Your task to perform on an android device: toggle sleep mode Image 0: 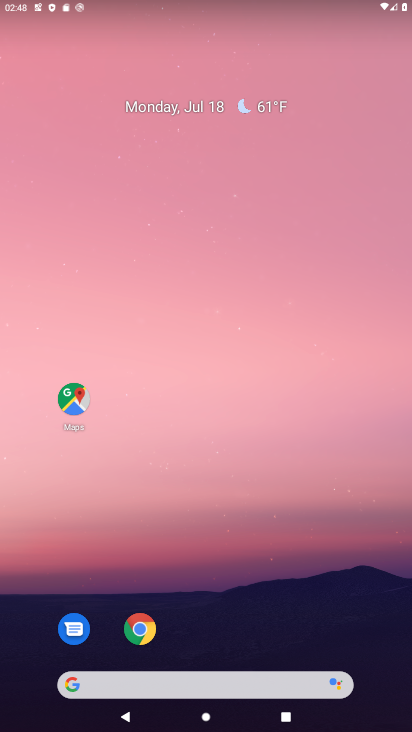
Step 0: drag from (222, 692) to (246, 171)
Your task to perform on an android device: toggle sleep mode Image 1: 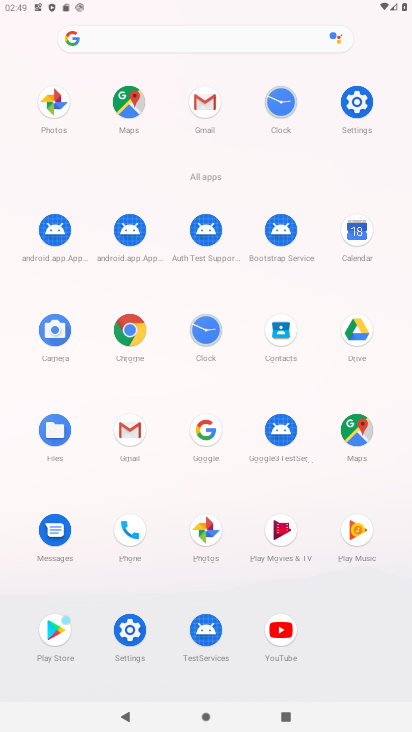
Step 1: click (362, 102)
Your task to perform on an android device: toggle sleep mode Image 2: 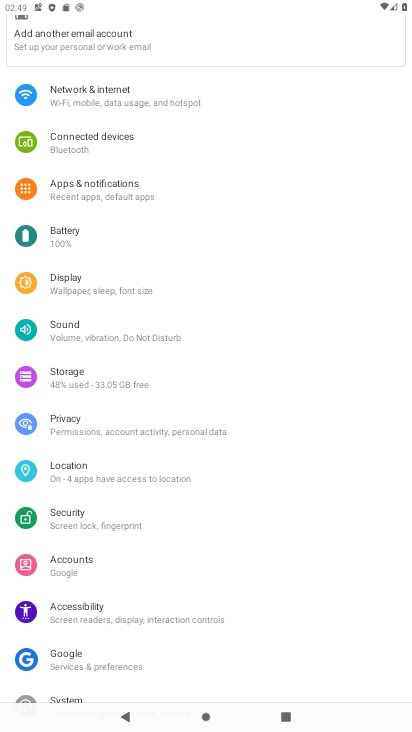
Step 2: click (124, 289)
Your task to perform on an android device: toggle sleep mode Image 3: 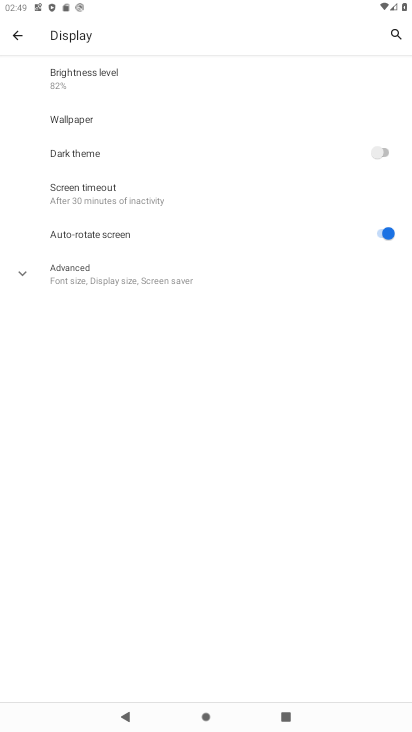
Step 3: click (95, 191)
Your task to perform on an android device: toggle sleep mode Image 4: 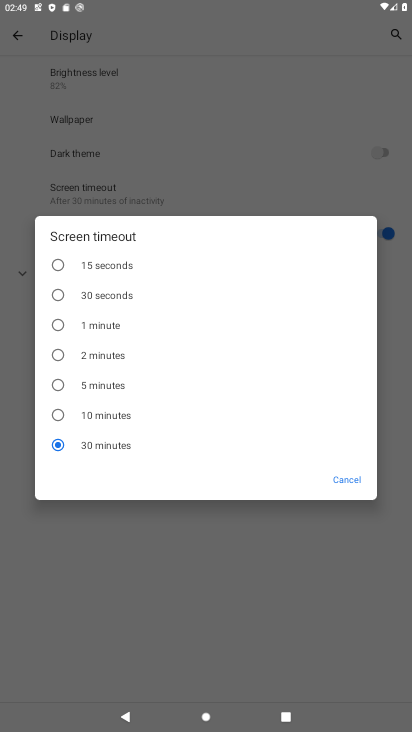
Step 4: click (124, 538)
Your task to perform on an android device: toggle sleep mode Image 5: 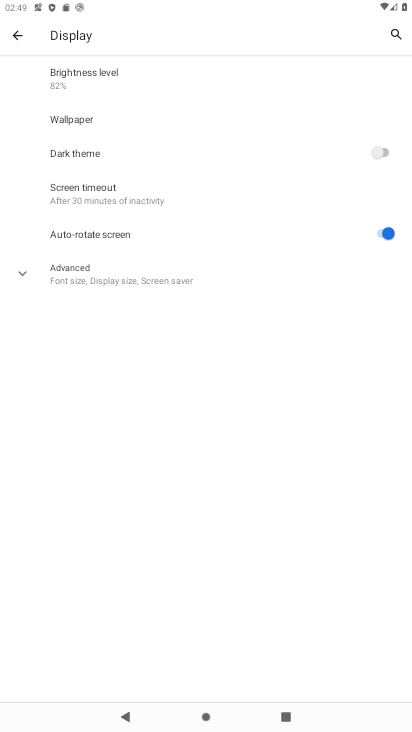
Step 5: task complete